Your task to perform on an android device: Go to battery settings Image 0: 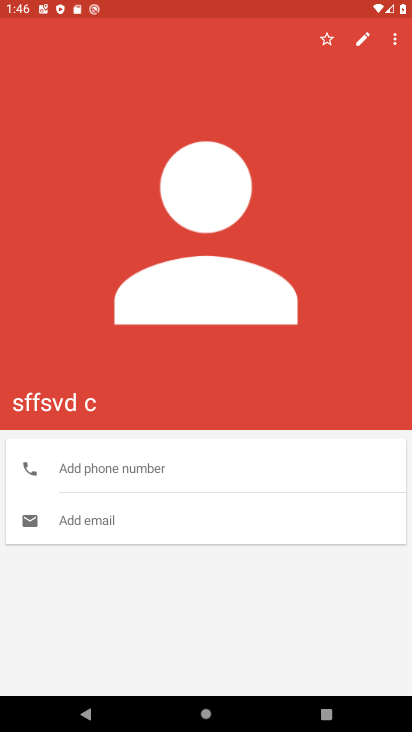
Step 0: press home button
Your task to perform on an android device: Go to battery settings Image 1: 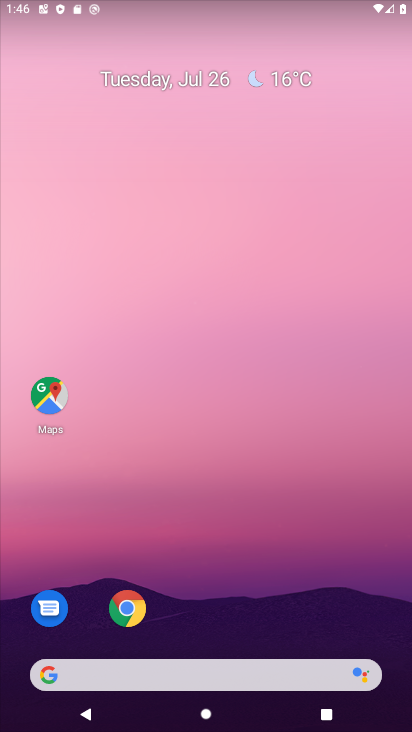
Step 1: drag from (280, 614) to (407, 85)
Your task to perform on an android device: Go to battery settings Image 2: 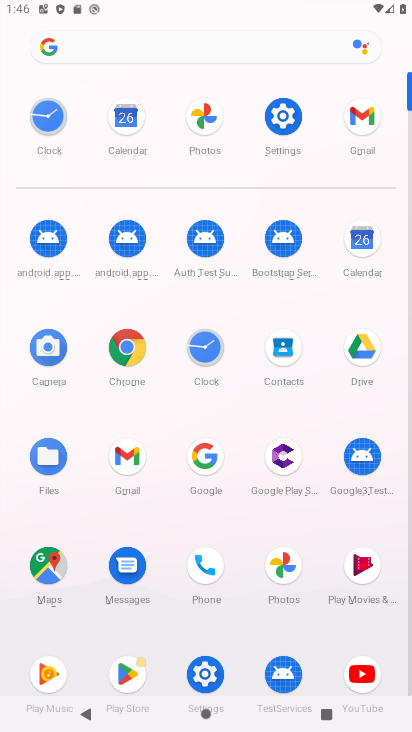
Step 2: click (270, 162)
Your task to perform on an android device: Go to battery settings Image 3: 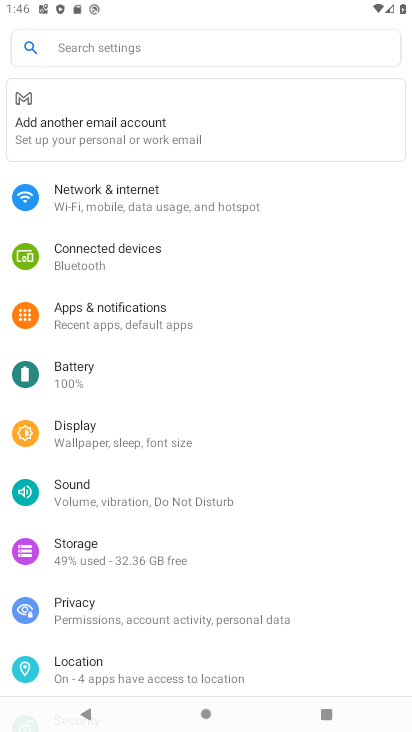
Step 3: task complete